Your task to perform on an android device: open app "Messages" (install if not already installed) Image 0: 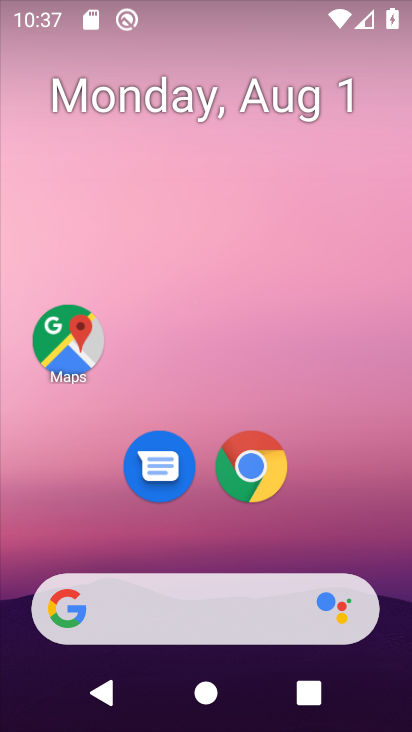
Step 0: drag from (228, 609) to (228, 123)
Your task to perform on an android device: open app "Messages" (install if not already installed) Image 1: 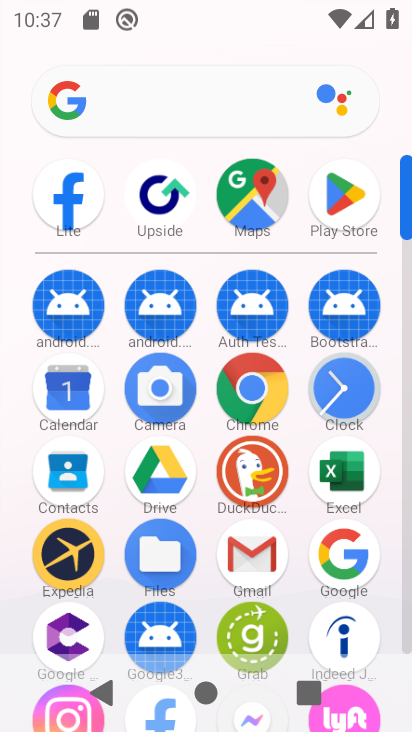
Step 1: drag from (208, 613) to (189, 307)
Your task to perform on an android device: open app "Messages" (install if not already installed) Image 2: 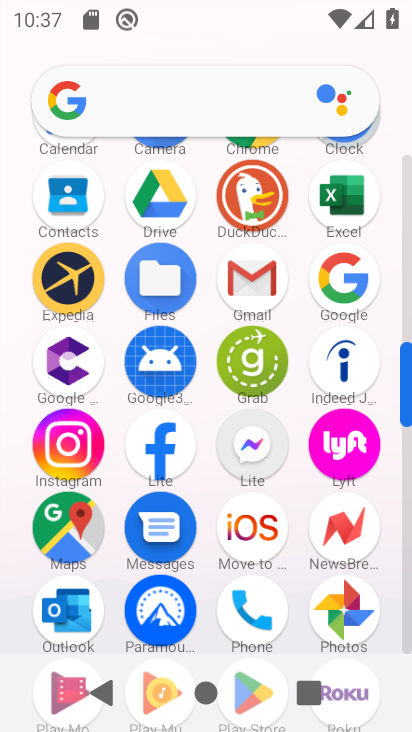
Step 2: drag from (198, 575) to (176, 285)
Your task to perform on an android device: open app "Messages" (install if not already installed) Image 3: 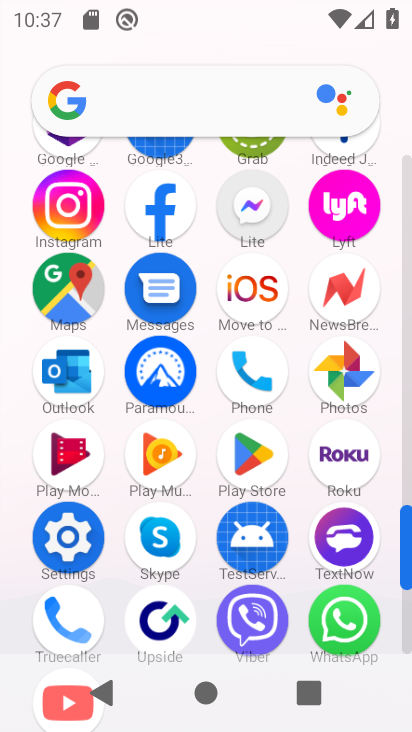
Step 3: click (165, 294)
Your task to perform on an android device: open app "Messages" (install if not already installed) Image 4: 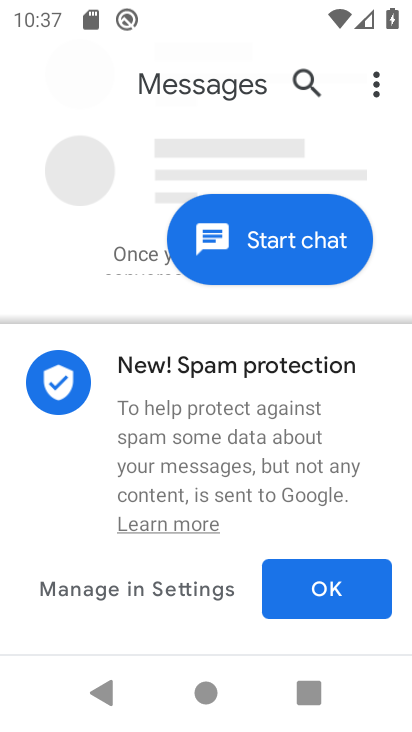
Step 4: task complete